Your task to perform on an android device: add a label to a message in the gmail app Image 0: 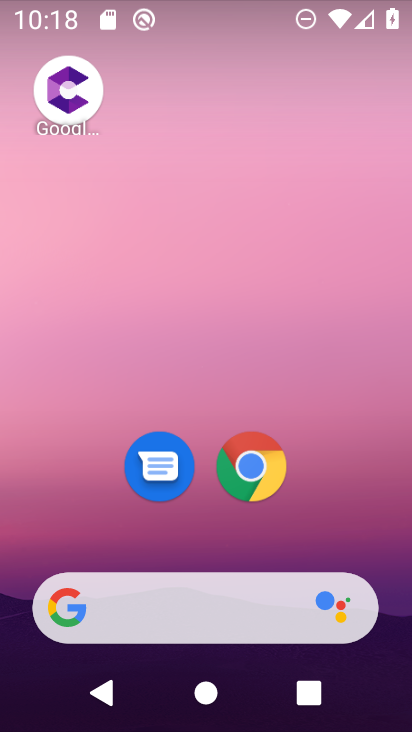
Step 0: drag from (203, 383) to (267, 13)
Your task to perform on an android device: add a label to a message in the gmail app Image 1: 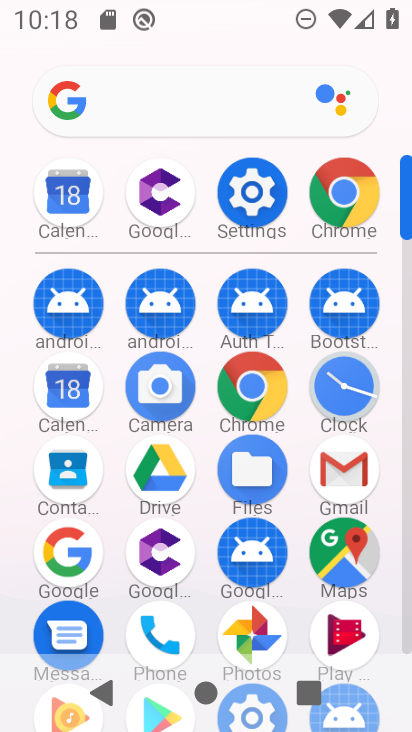
Step 1: click (338, 466)
Your task to perform on an android device: add a label to a message in the gmail app Image 2: 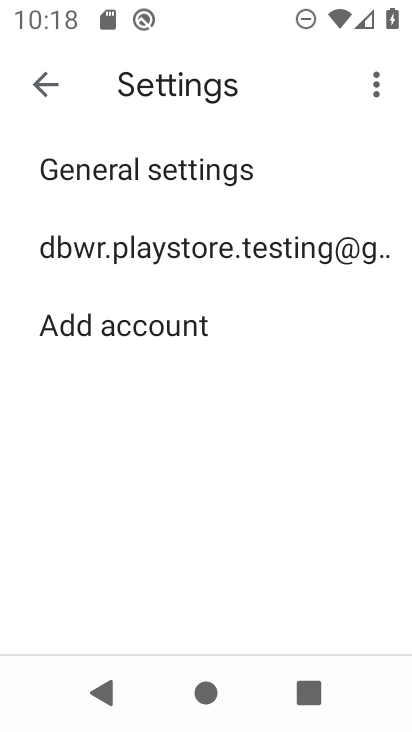
Step 2: click (221, 245)
Your task to perform on an android device: add a label to a message in the gmail app Image 3: 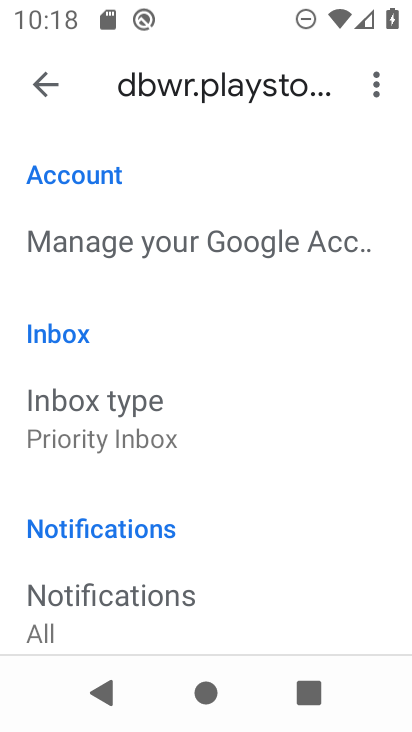
Step 3: click (40, 74)
Your task to perform on an android device: add a label to a message in the gmail app Image 4: 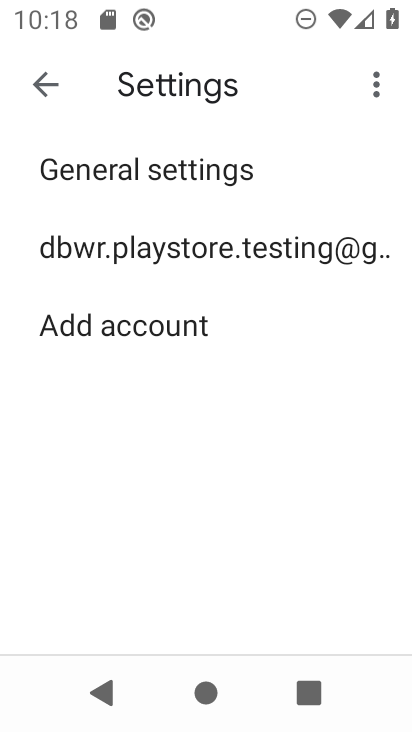
Step 4: click (33, 50)
Your task to perform on an android device: add a label to a message in the gmail app Image 5: 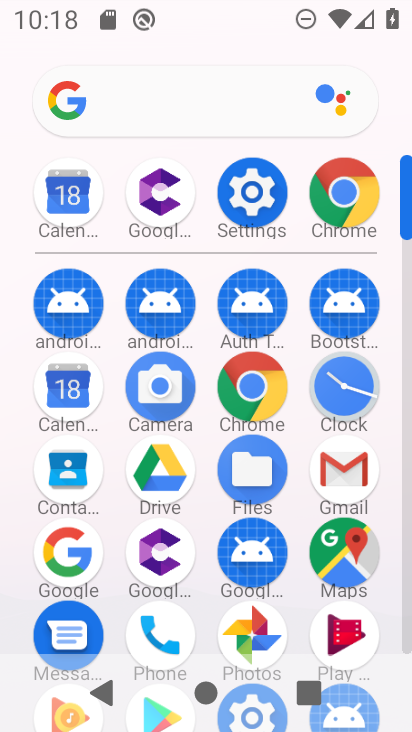
Step 5: click (369, 476)
Your task to perform on an android device: add a label to a message in the gmail app Image 6: 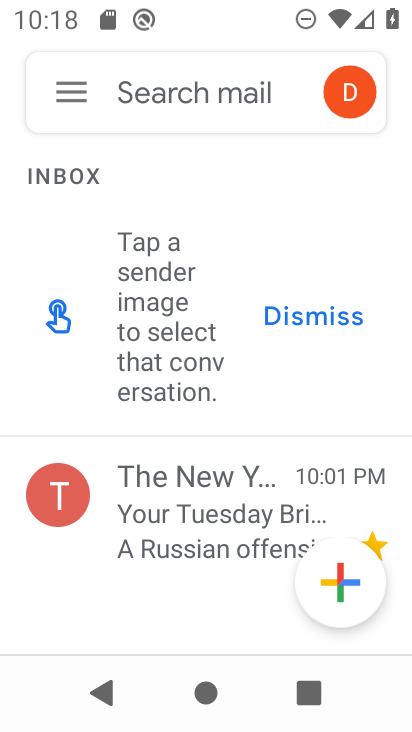
Step 6: click (72, 101)
Your task to perform on an android device: add a label to a message in the gmail app Image 7: 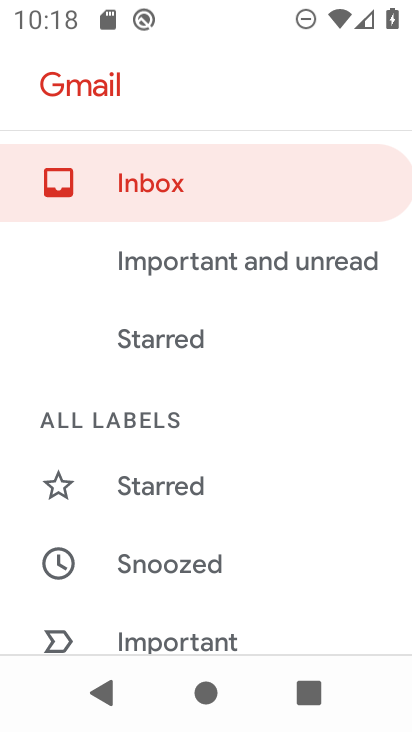
Step 7: drag from (189, 595) to (260, 207)
Your task to perform on an android device: add a label to a message in the gmail app Image 8: 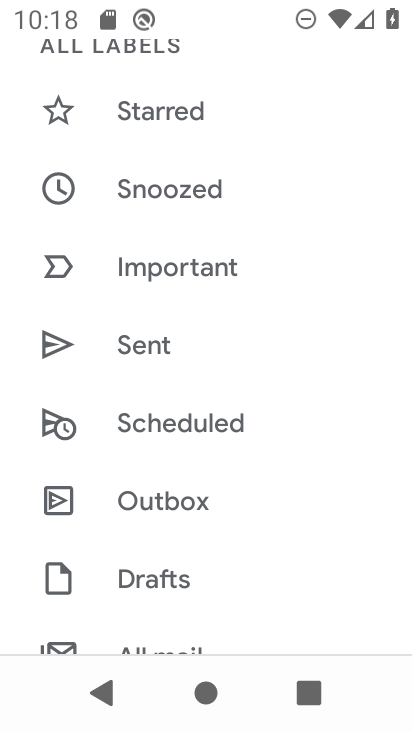
Step 8: click (147, 646)
Your task to perform on an android device: add a label to a message in the gmail app Image 9: 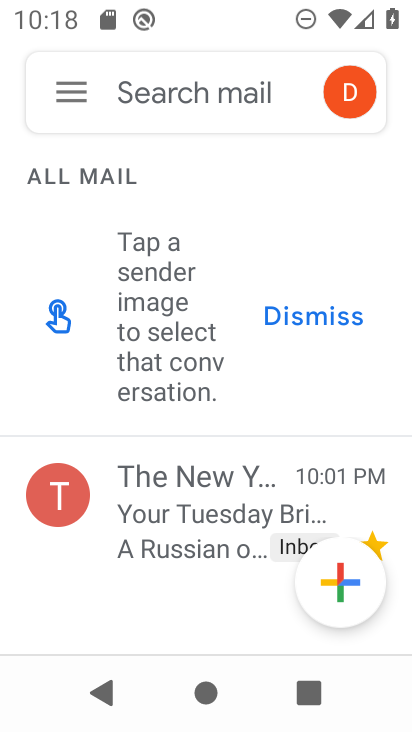
Step 9: click (191, 545)
Your task to perform on an android device: add a label to a message in the gmail app Image 10: 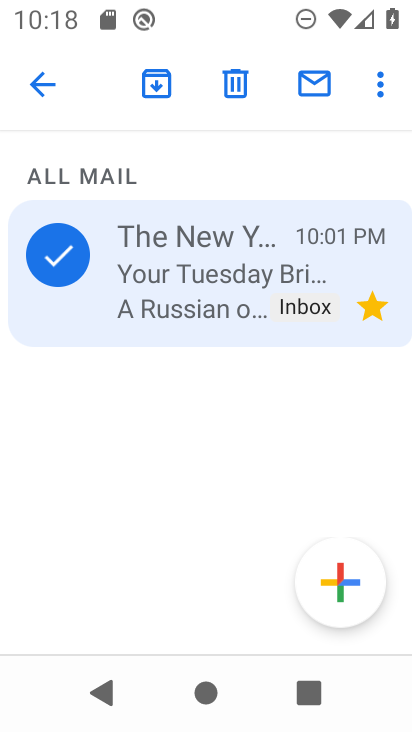
Step 10: click (387, 75)
Your task to perform on an android device: add a label to a message in the gmail app Image 11: 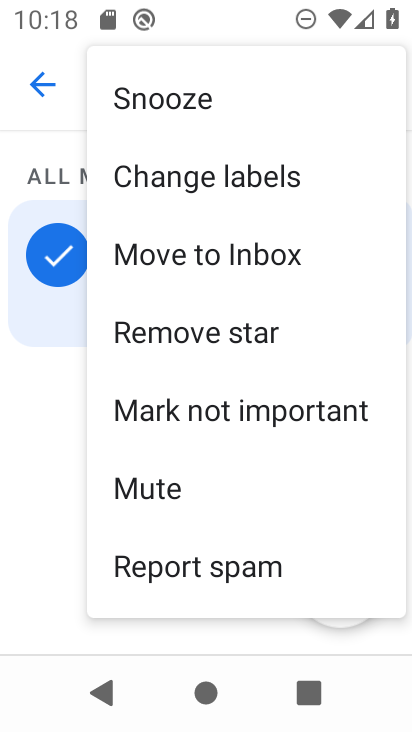
Step 11: click (231, 259)
Your task to perform on an android device: add a label to a message in the gmail app Image 12: 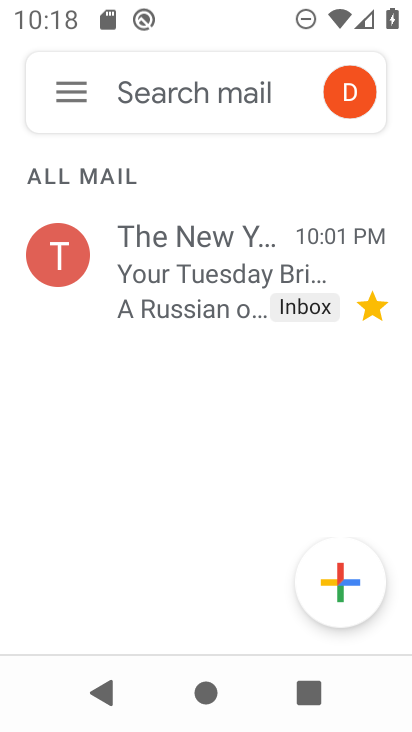
Step 12: click (237, 291)
Your task to perform on an android device: add a label to a message in the gmail app Image 13: 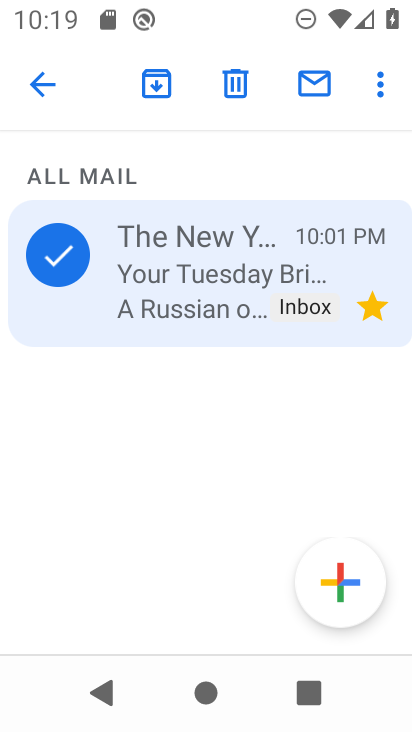
Step 13: click (379, 78)
Your task to perform on an android device: add a label to a message in the gmail app Image 14: 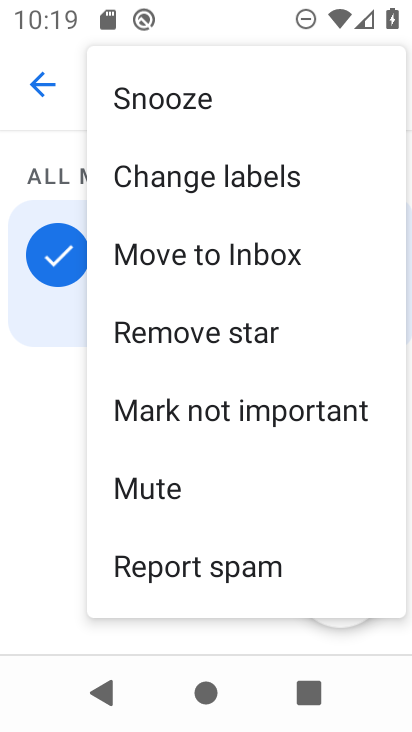
Step 14: click (191, 170)
Your task to perform on an android device: add a label to a message in the gmail app Image 15: 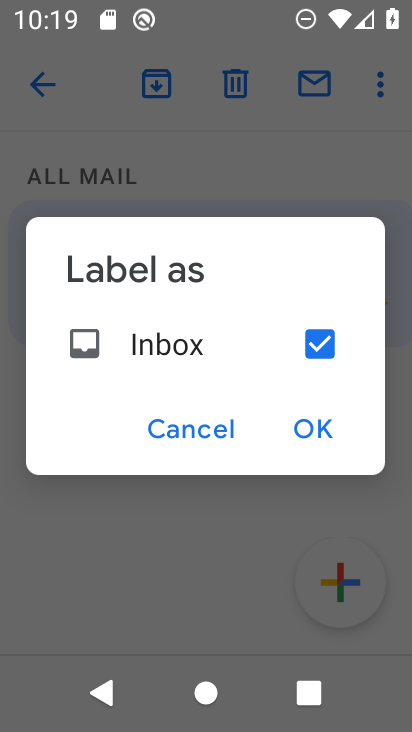
Step 15: click (321, 434)
Your task to perform on an android device: add a label to a message in the gmail app Image 16: 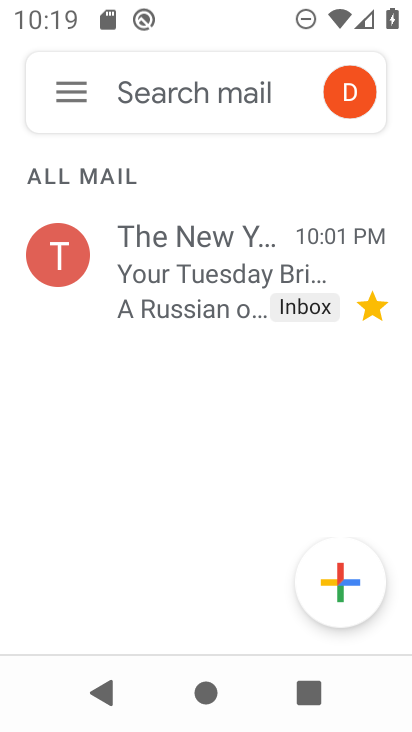
Step 16: task complete